Your task to perform on an android device: Open sound settings Image 0: 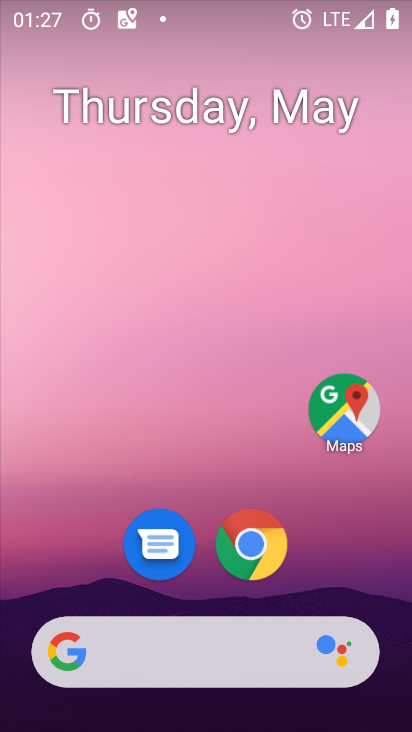
Step 0: drag from (383, 588) to (353, 111)
Your task to perform on an android device: Open sound settings Image 1: 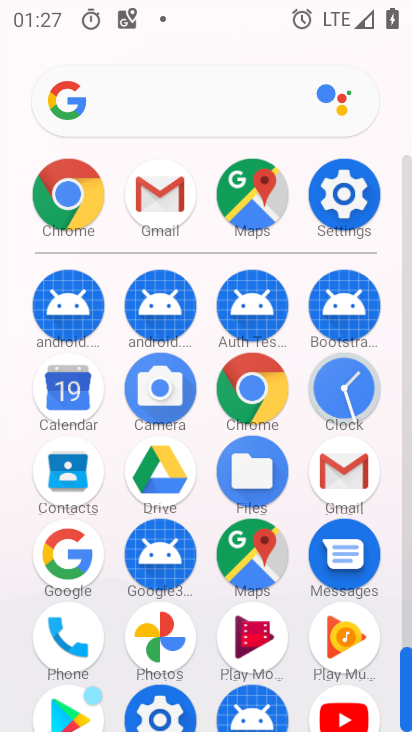
Step 1: click (352, 203)
Your task to perform on an android device: Open sound settings Image 2: 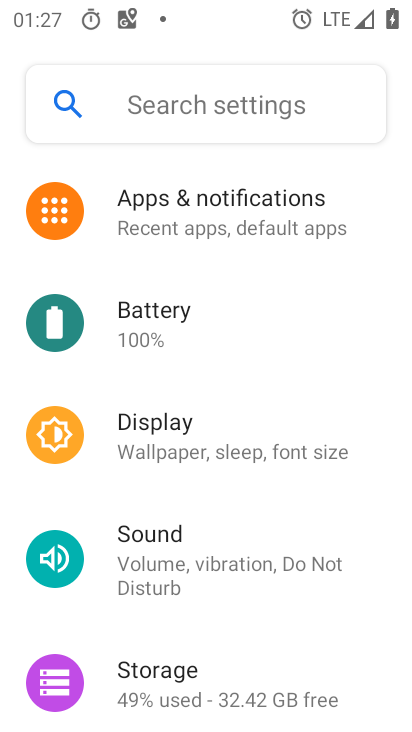
Step 2: drag from (367, 288) to (372, 419)
Your task to perform on an android device: Open sound settings Image 3: 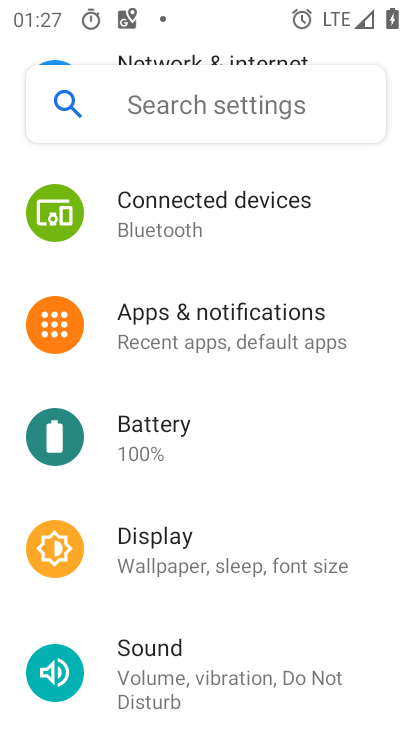
Step 3: drag from (372, 232) to (373, 392)
Your task to perform on an android device: Open sound settings Image 4: 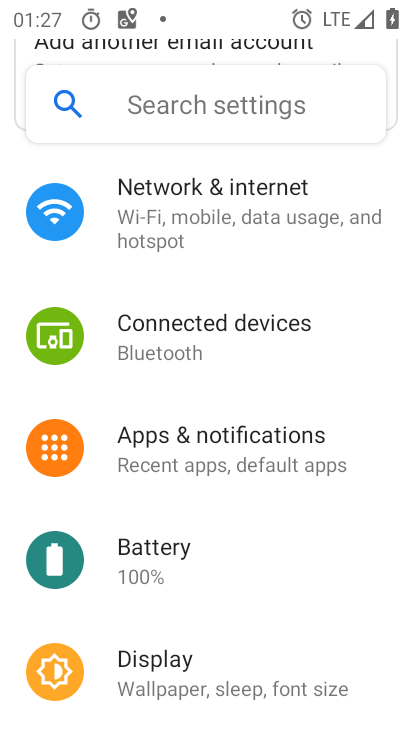
Step 4: drag from (365, 186) to (355, 392)
Your task to perform on an android device: Open sound settings Image 5: 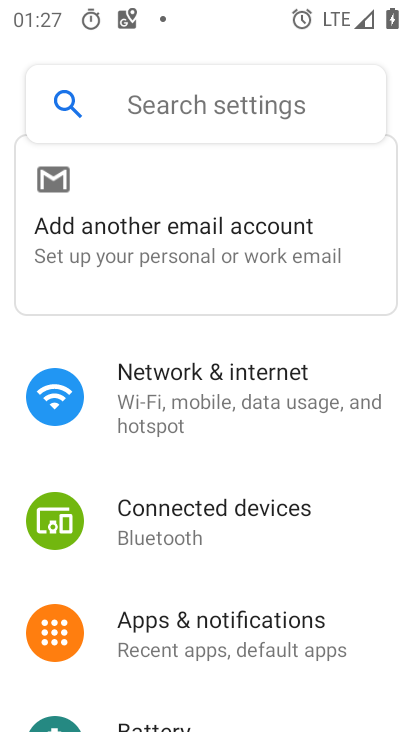
Step 5: drag from (347, 500) to (367, 341)
Your task to perform on an android device: Open sound settings Image 6: 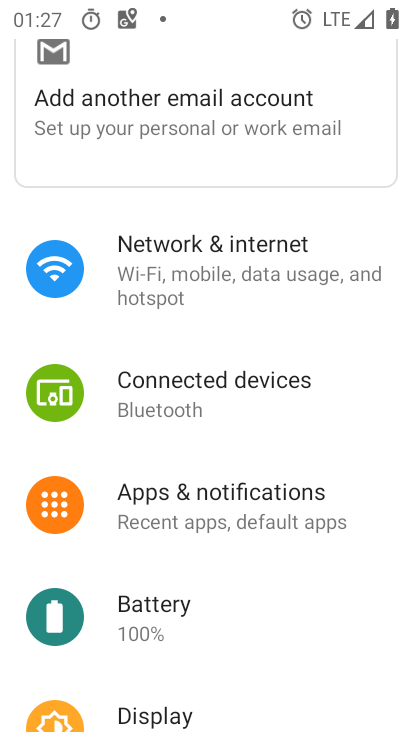
Step 6: drag from (368, 490) to (368, 319)
Your task to perform on an android device: Open sound settings Image 7: 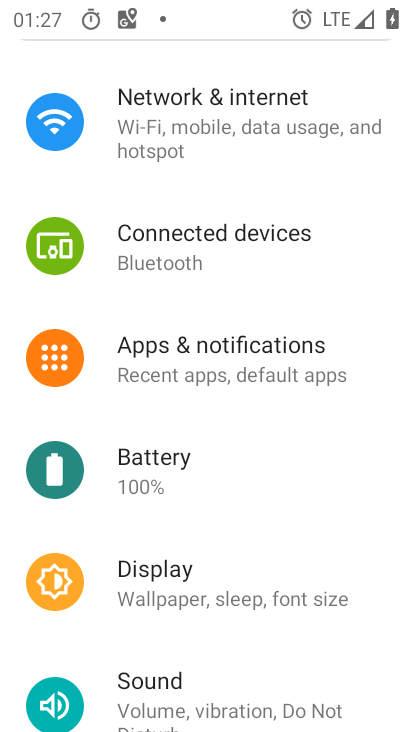
Step 7: drag from (356, 510) to (366, 329)
Your task to perform on an android device: Open sound settings Image 8: 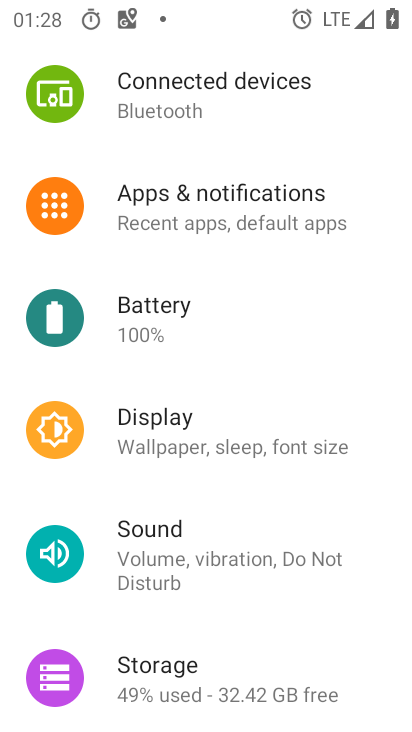
Step 8: drag from (386, 563) to (369, 405)
Your task to perform on an android device: Open sound settings Image 9: 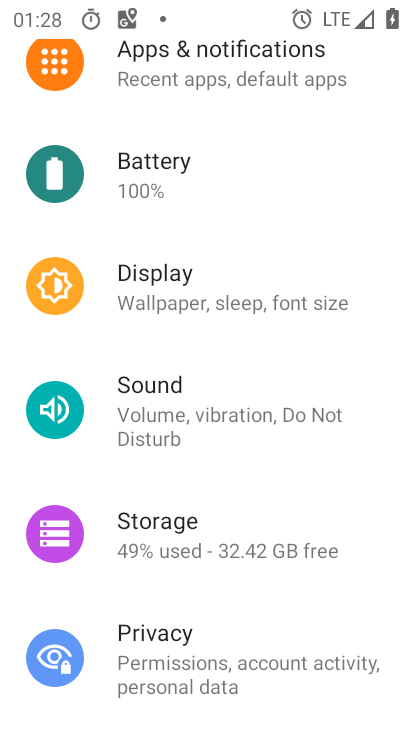
Step 9: drag from (371, 575) to (362, 449)
Your task to perform on an android device: Open sound settings Image 10: 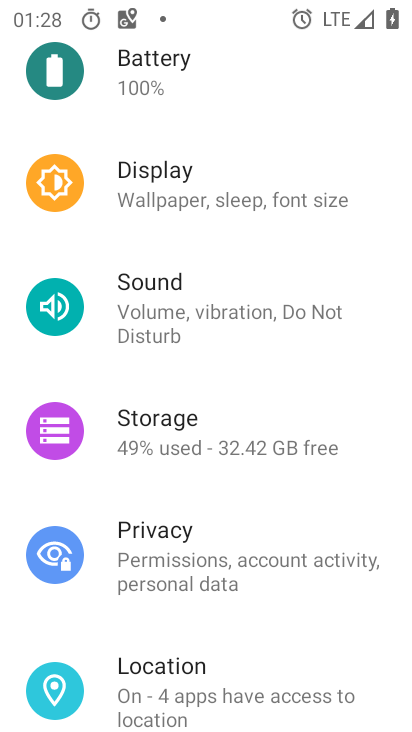
Step 10: drag from (361, 625) to (364, 500)
Your task to perform on an android device: Open sound settings Image 11: 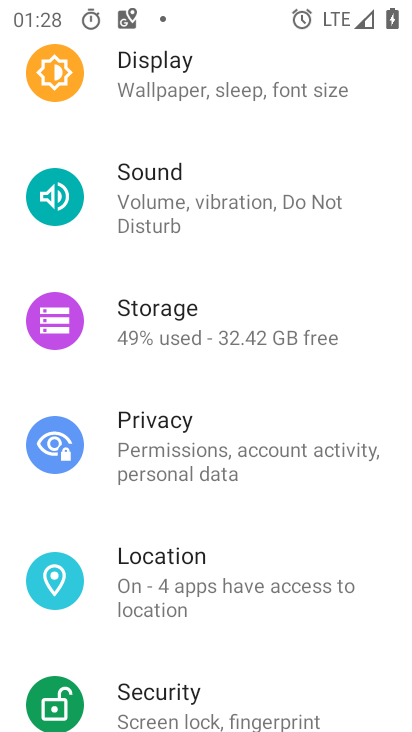
Step 11: drag from (354, 634) to (345, 484)
Your task to perform on an android device: Open sound settings Image 12: 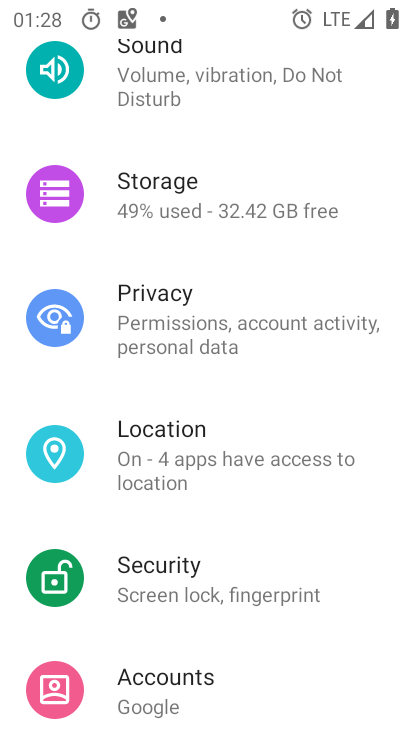
Step 12: drag from (338, 629) to (323, 495)
Your task to perform on an android device: Open sound settings Image 13: 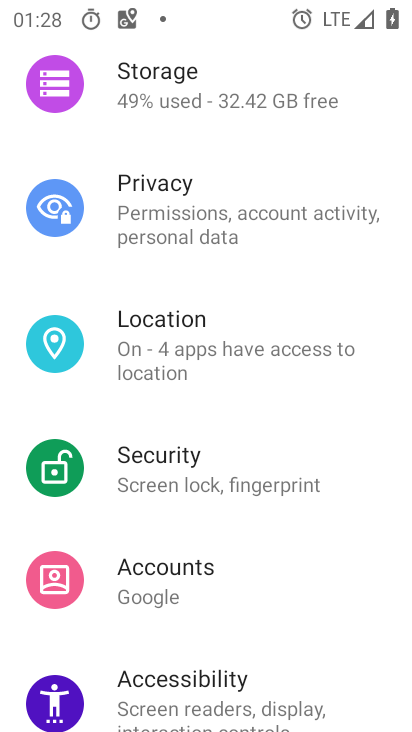
Step 13: drag from (330, 661) to (317, 490)
Your task to perform on an android device: Open sound settings Image 14: 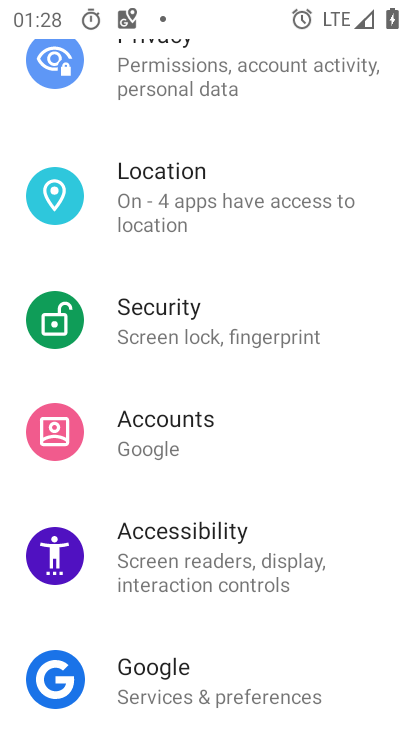
Step 14: drag from (344, 658) to (336, 514)
Your task to perform on an android device: Open sound settings Image 15: 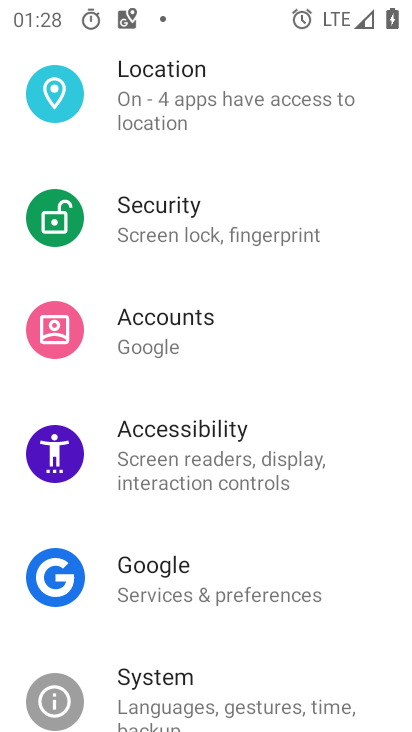
Step 15: drag from (350, 347) to (357, 488)
Your task to perform on an android device: Open sound settings Image 16: 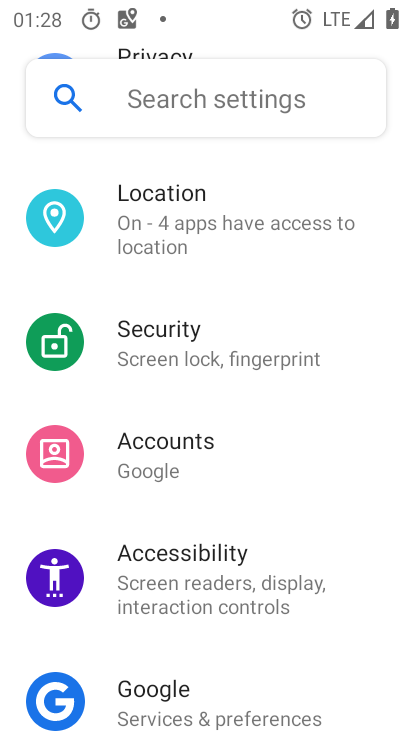
Step 16: drag from (353, 290) to (353, 463)
Your task to perform on an android device: Open sound settings Image 17: 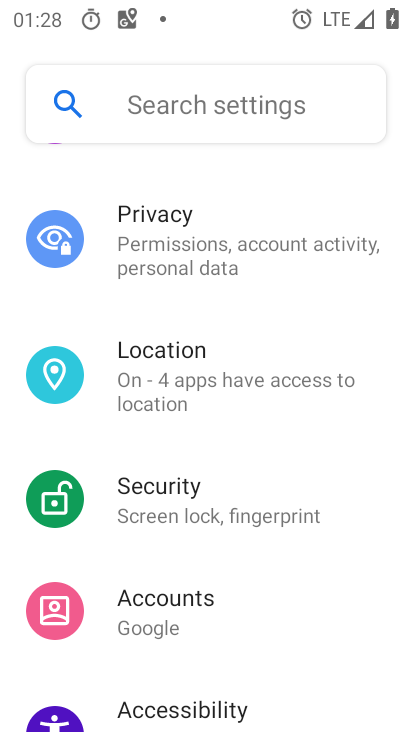
Step 17: drag from (355, 211) to (353, 445)
Your task to perform on an android device: Open sound settings Image 18: 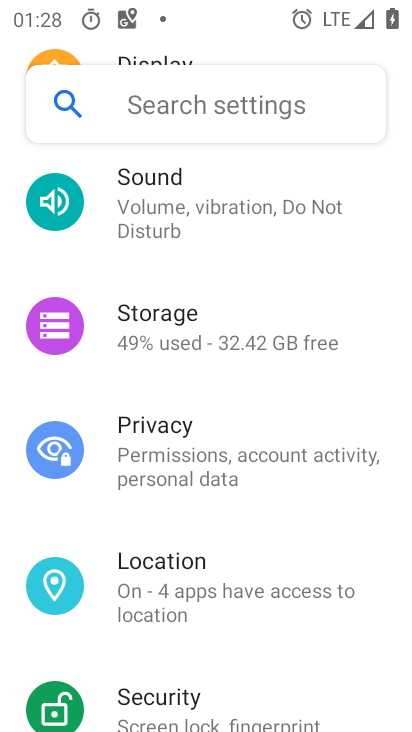
Step 18: click (298, 198)
Your task to perform on an android device: Open sound settings Image 19: 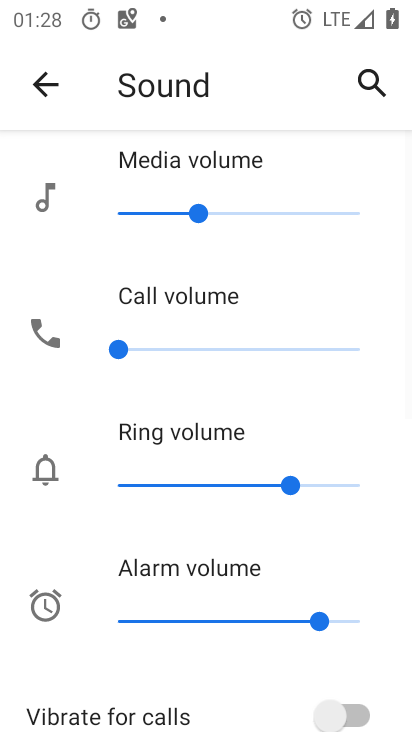
Step 19: task complete